Your task to perform on an android device: Open display settings Image 0: 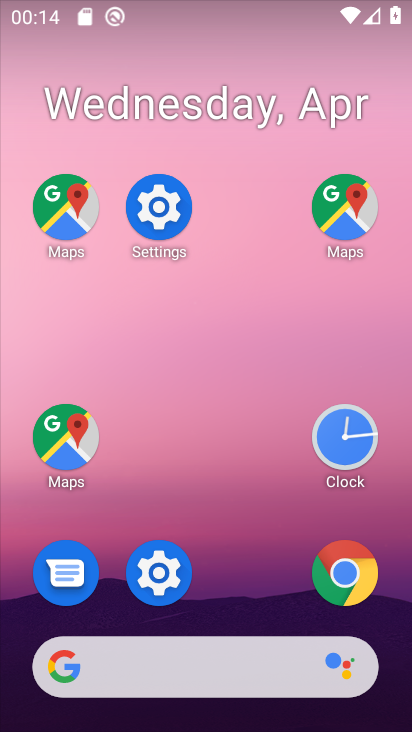
Step 0: drag from (236, 587) to (132, 229)
Your task to perform on an android device: Open display settings Image 1: 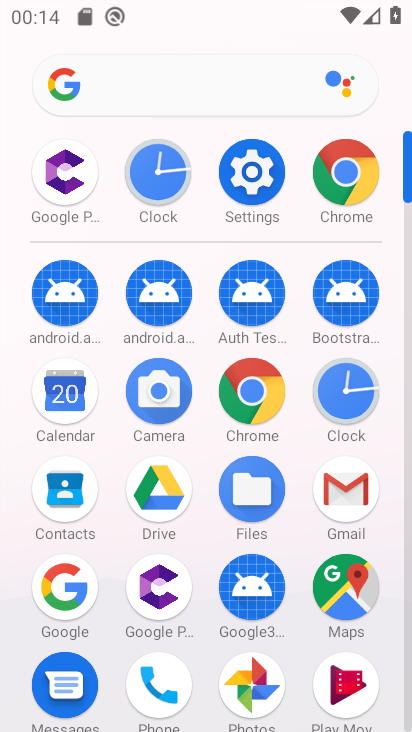
Step 1: click (249, 175)
Your task to perform on an android device: Open display settings Image 2: 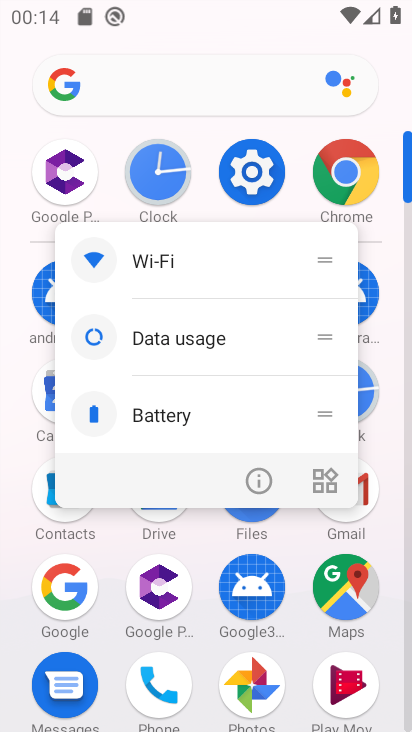
Step 2: click (252, 200)
Your task to perform on an android device: Open display settings Image 3: 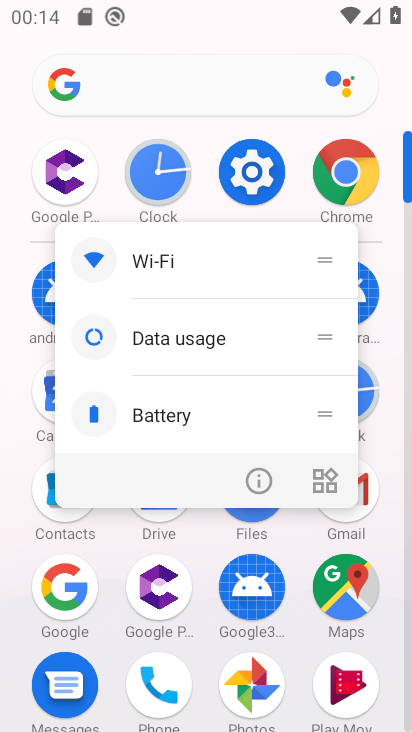
Step 3: click (251, 187)
Your task to perform on an android device: Open display settings Image 4: 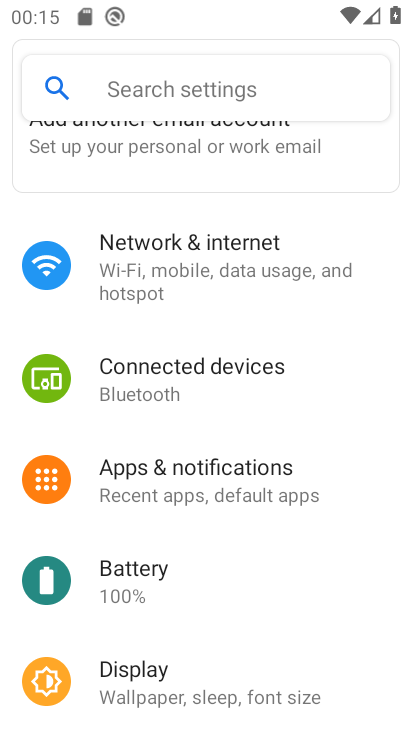
Step 4: drag from (184, 610) to (125, 222)
Your task to perform on an android device: Open display settings Image 5: 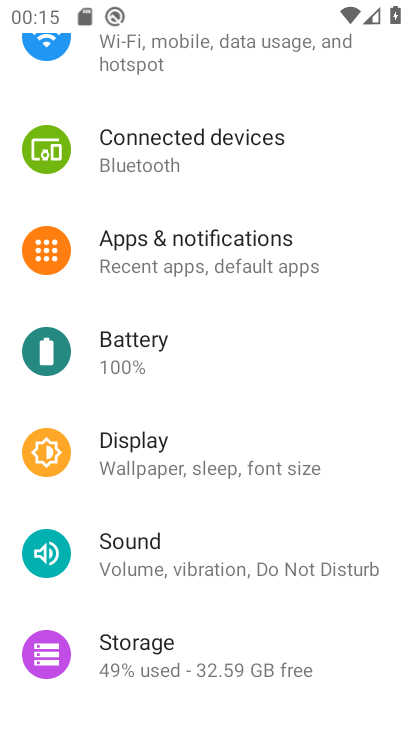
Step 5: click (138, 457)
Your task to perform on an android device: Open display settings Image 6: 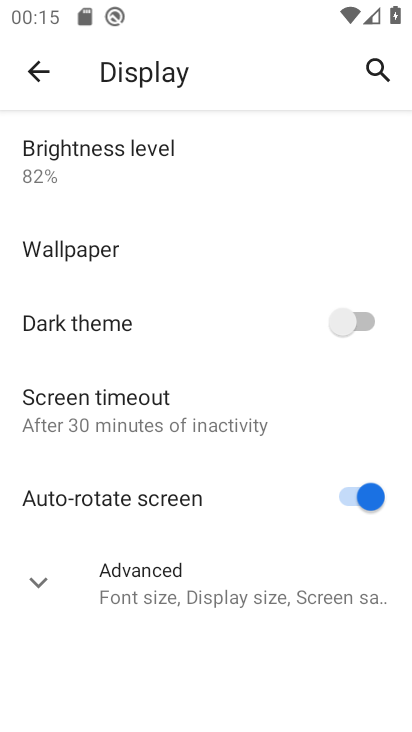
Step 6: task complete